Your task to perform on an android device: Go to calendar. Show me events next week Image 0: 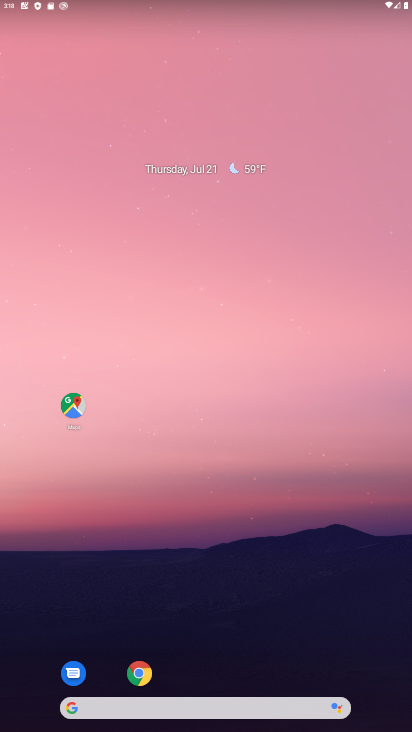
Step 0: drag from (368, 674) to (321, 77)
Your task to perform on an android device: Go to calendar. Show me events next week Image 1: 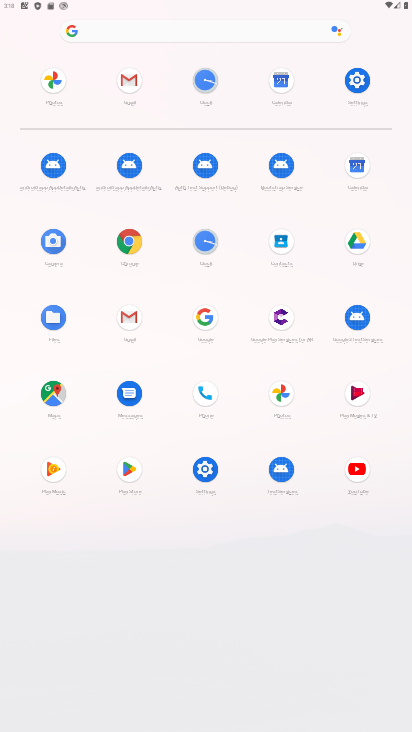
Step 1: click (358, 166)
Your task to perform on an android device: Go to calendar. Show me events next week Image 2: 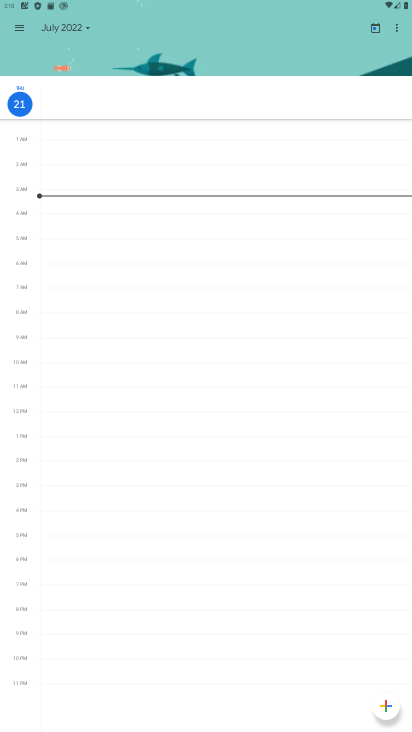
Step 2: click (17, 23)
Your task to perform on an android device: Go to calendar. Show me events next week Image 3: 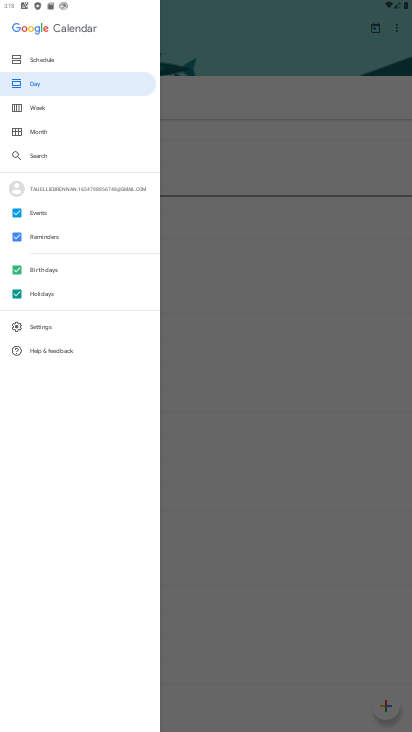
Step 3: click (38, 104)
Your task to perform on an android device: Go to calendar. Show me events next week Image 4: 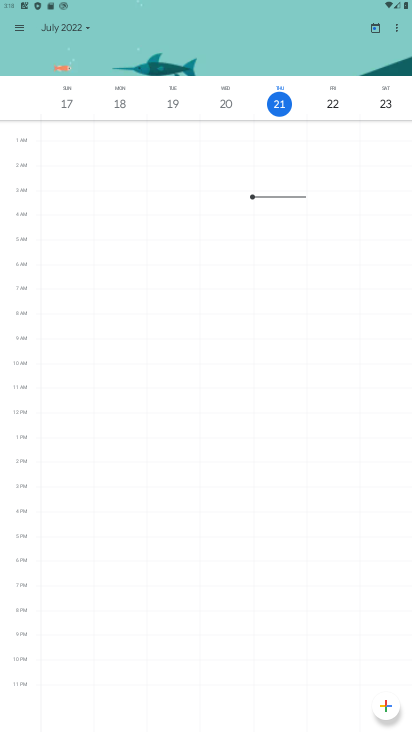
Step 4: click (85, 32)
Your task to perform on an android device: Go to calendar. Show me events next week Image 5: 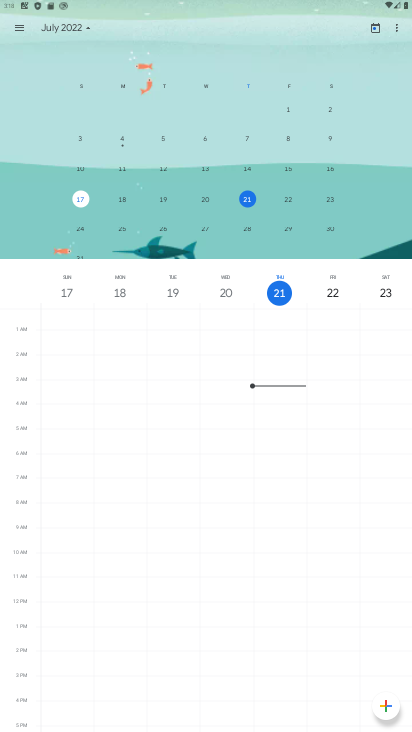
Step 5: click (77, 227)
Your task to perform on an android device: Go to calendar. Show me events next week Image 6: 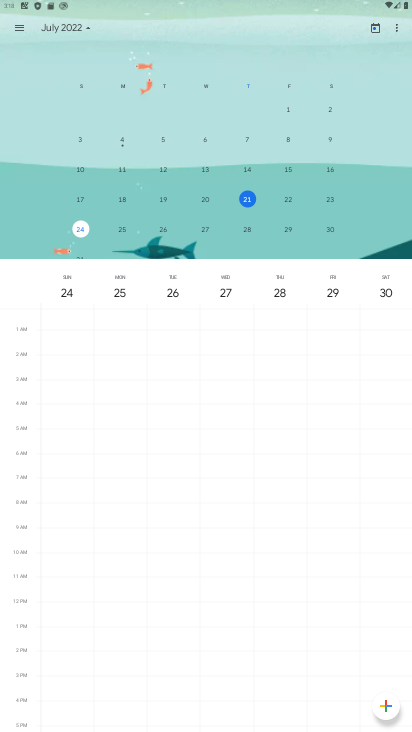
Step 6: task complete